Your task to perform on an android device: visit the assistant section in the google photos Image 0: 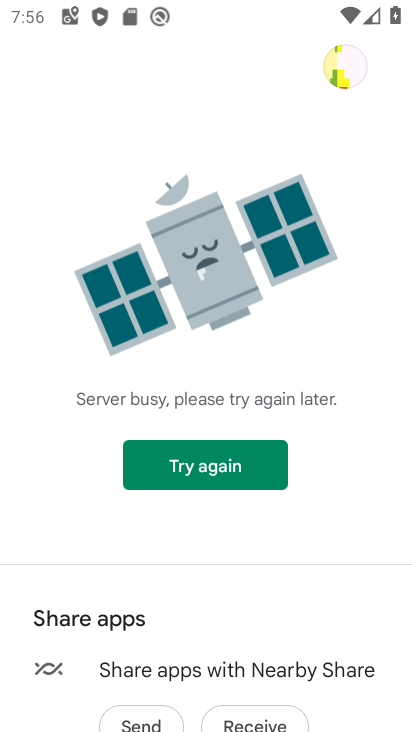
Step 0: press home button
Your task to perform on an android device: visit the assistant section in the google photos Image 1: 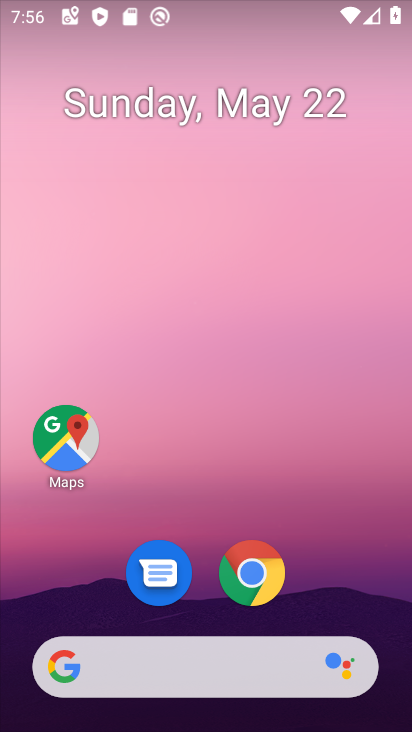
Step 1: drag from (325, 557) to (342, 178)
Your task to perform on an android device: visit the assistant section in the google photos Image 2: 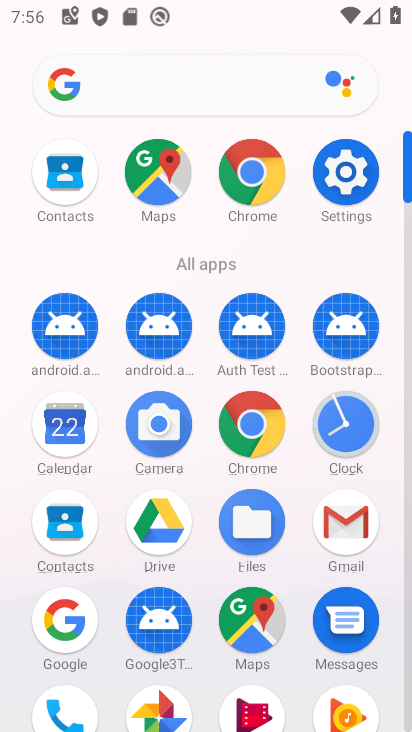
Step 2: click (165, 704)
Your task to perform on an android device: visit the assistant section in the google photos Image 3: 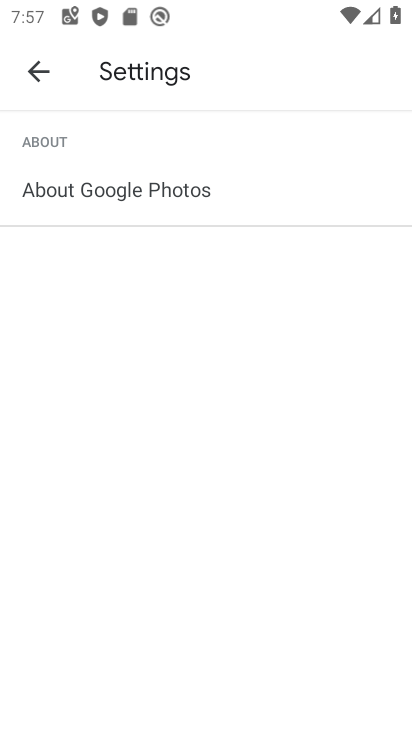
Step 3: click (34, 60)
Your task to perform on an android device: visit the assistant section in the google photos Image 4: 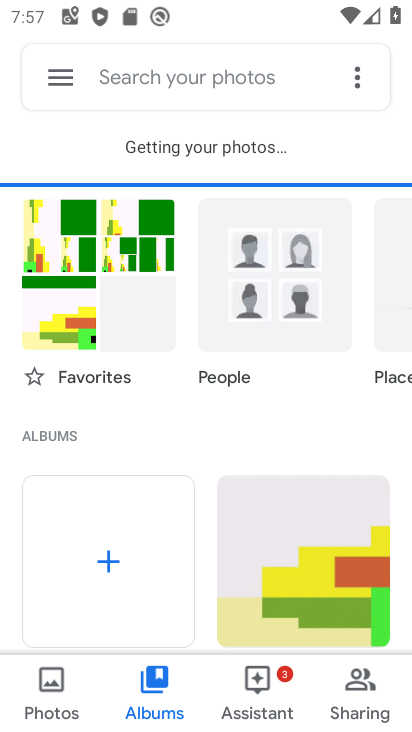
Step 4: click (275, 689)
Your task to perform on an android device: visit the assistant section in the google photos Image 5: 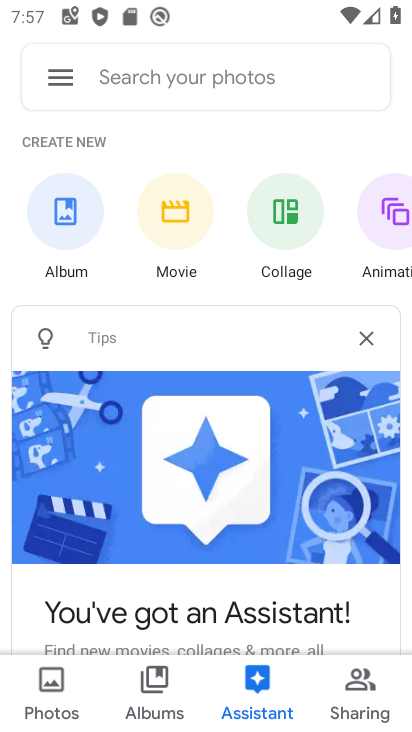
Step 5: task complete